Your task to perform on an android device: Is it going to rain tomorrow? Image 0: 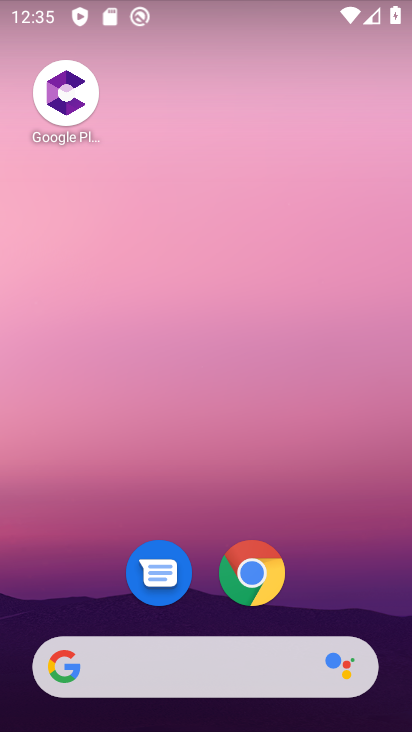
Step 0: click (77, 679)
Your task to perform on an android device: Is it going to rain tomorrow? Image 1: 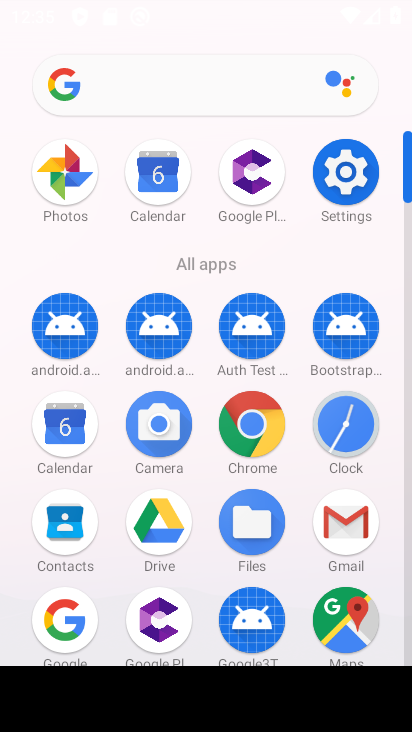
Step 1: click (134, 86)
Your task to perform on an android device: Is it going to rain tomorrow? Image 2: 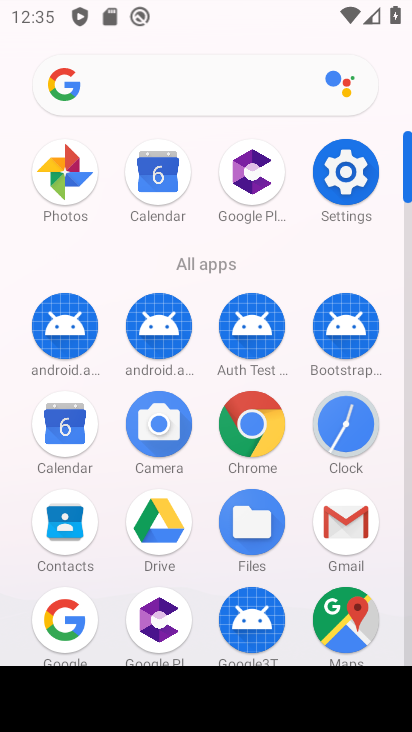
Step 2: click (59, 92)
Your task to perform on an android device: Is it going to rain tomorrow? Image 3: 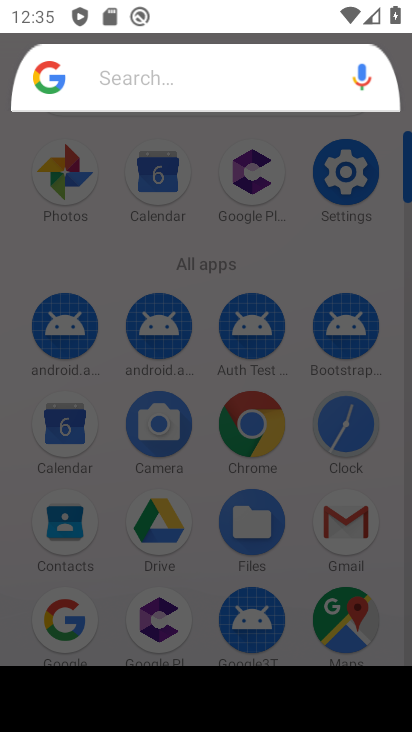
Step 3: click (121, 68)
Your task to perform on an android device: Is it going to rain tomorrow? Image 4: 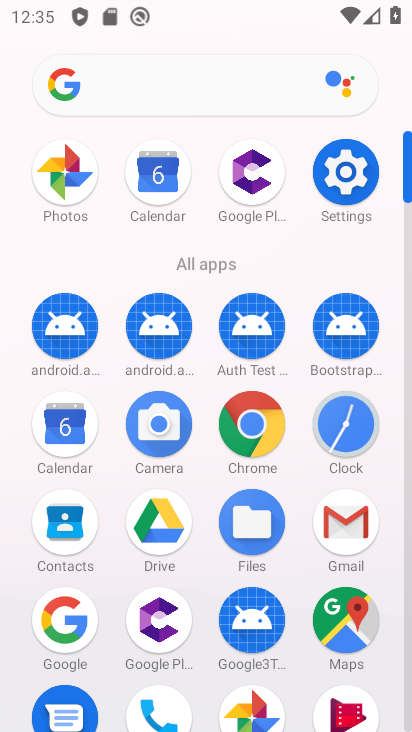
Step 4: click (67, 621)
Your task to perform on an android device: Is it going to rain tomorrow? Image 5: 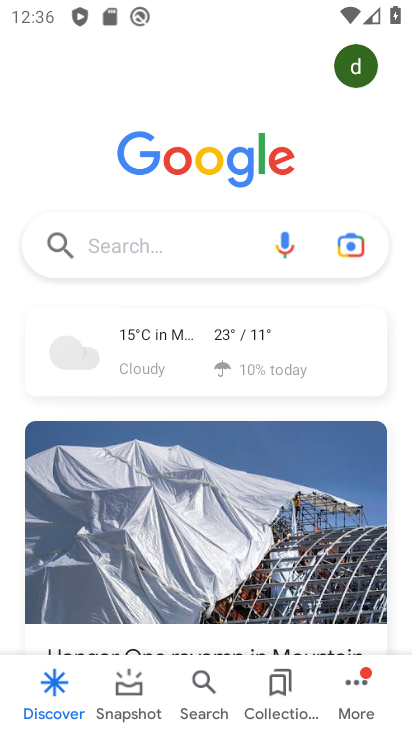
Step 5: click (209, 337)
Your task to perform on an android device: Is it going to rain tomorrow? Image 6: 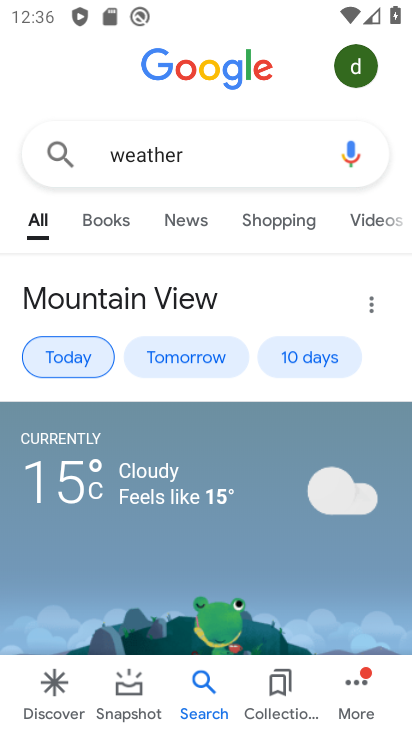
Step 6: click (191, 356)
Your task to perform on an android device: Is it going to rain tomorrow? Image 7: 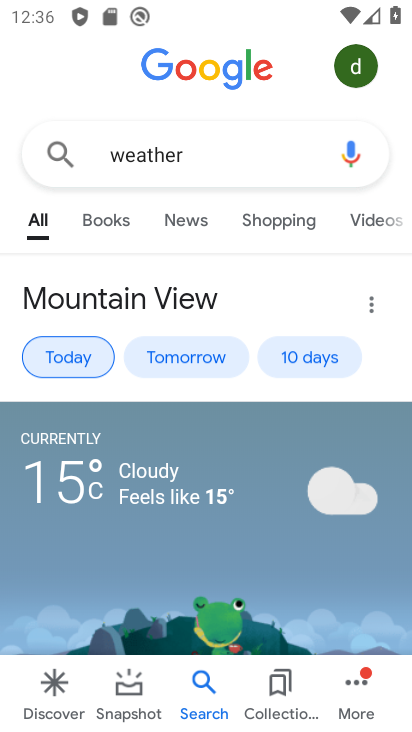
Step 7: click (191, 356)
Your task to perform on an android device: Is it going to rain tomorrow? Image 8: 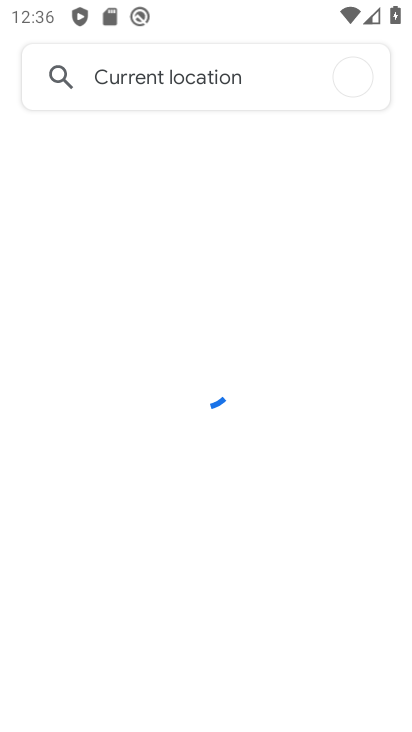
Step 8: click (191, 356)
Your task to perform on an android device: Is it going to rain tomorrow? Image 9: 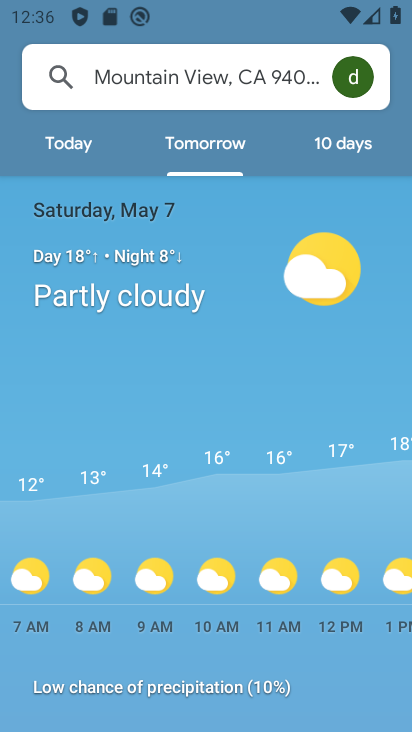
Step 9: task complete